Your task to perform on an android device: check data usage Image 0: 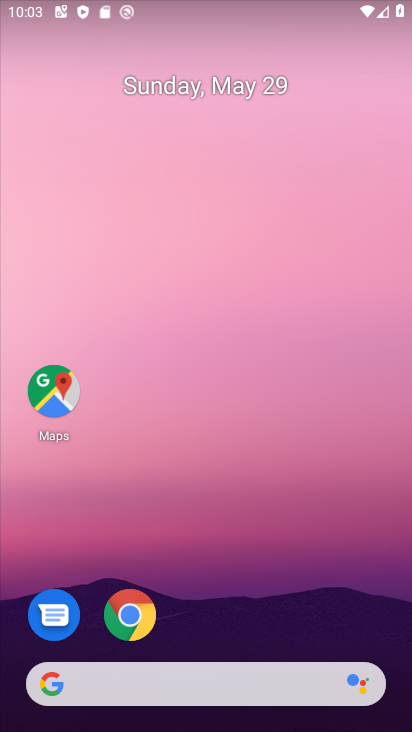
Step 0: drag from (212, 652) to (156, 39)
Your task to perform on an android device: check data usage Image 1: 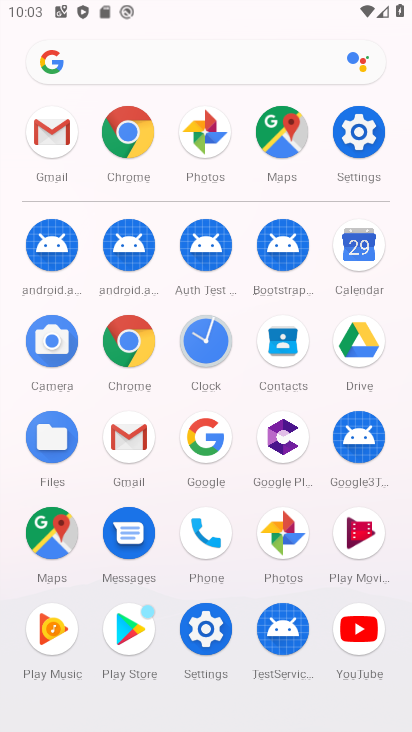
Step 1: click (355, 133)
Your task to perform on an android device: check data usage Image 2: 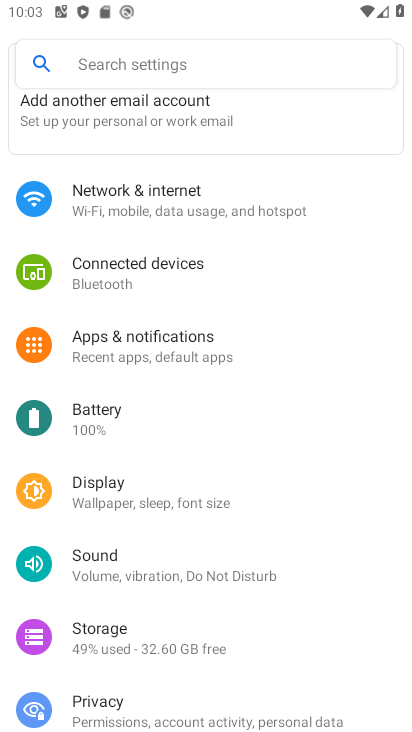
Step 2: click (128, 189)
Your task to perform on an android device: check data usage Image 3: 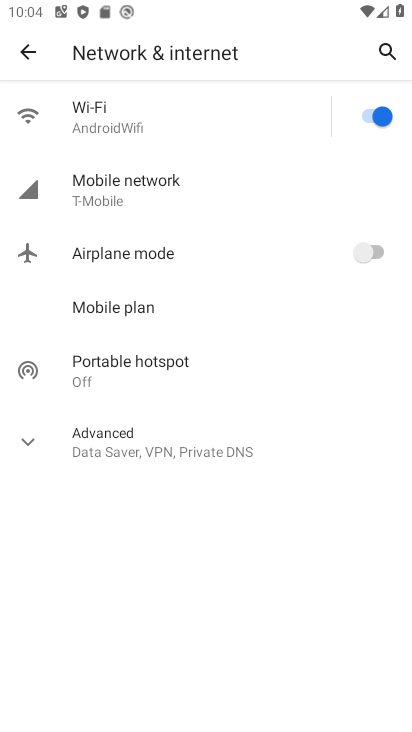
Step 3: click (159, 186)
Your task to perform on an android device: check data usage Image 4: 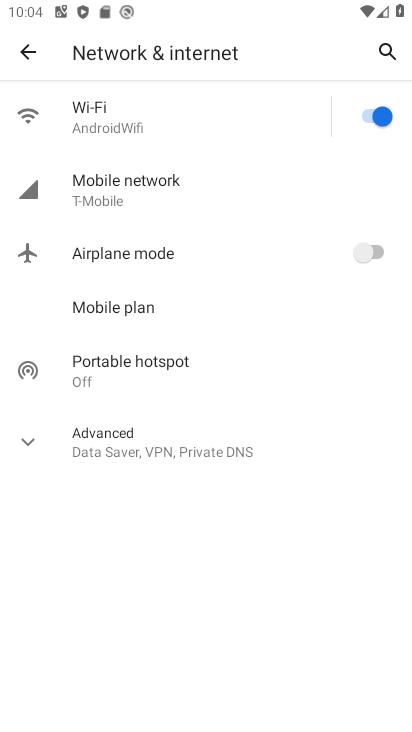
Step 4: task complete